Your task to perform on an android device: toggle data saver in the chrome app Image 0: 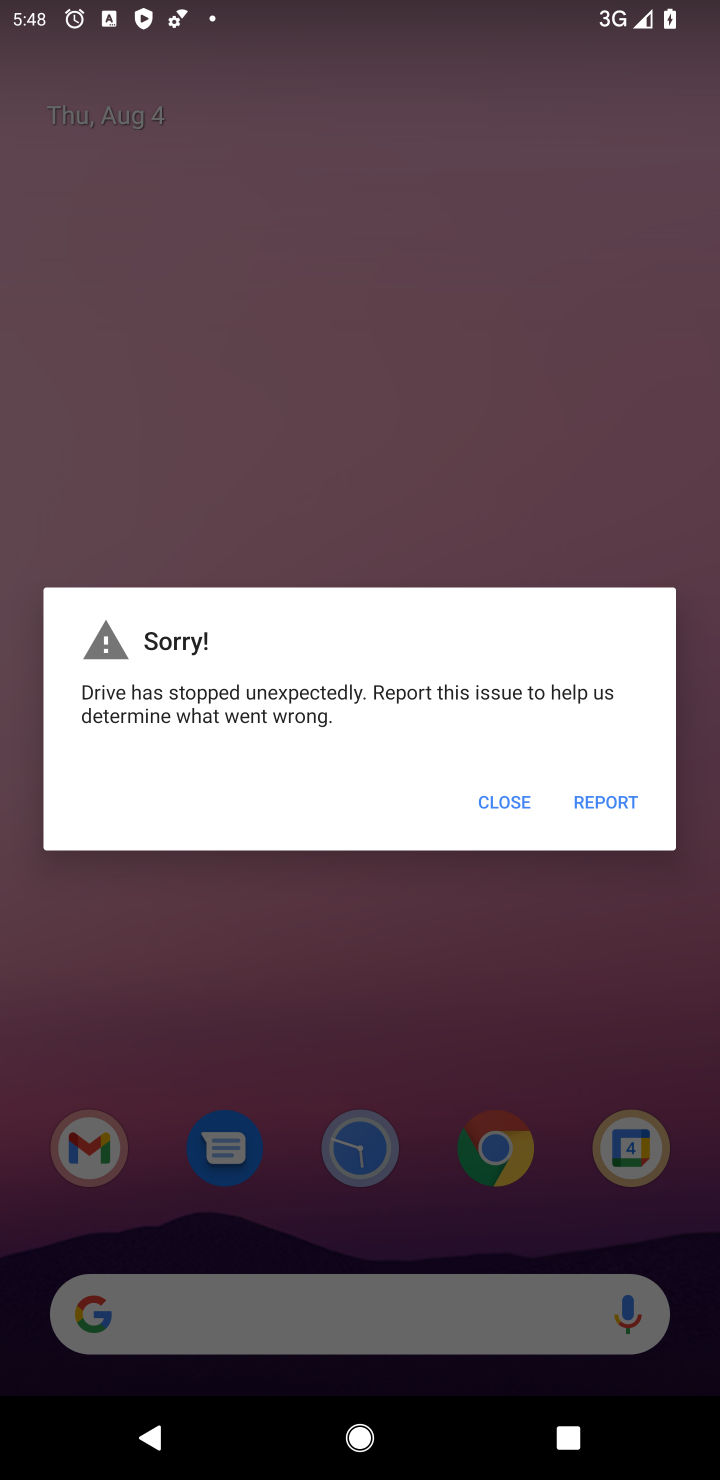
Step 0: press home button
Your task to perform on an android device: toggle data saver in the chrome app Image 1: 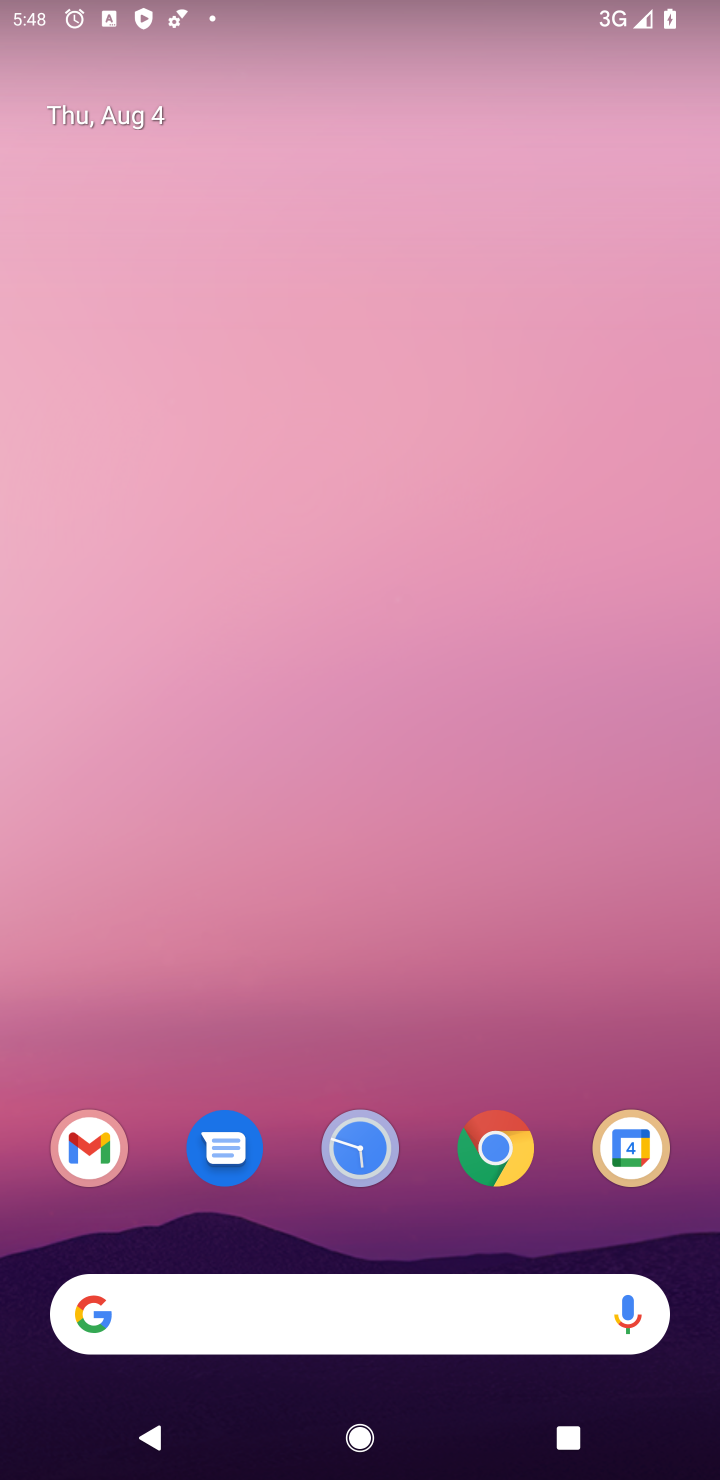
Step 1: click (499, 1148)
Your task to perform on an android device: toggle data saver in the chrome app Image 2: 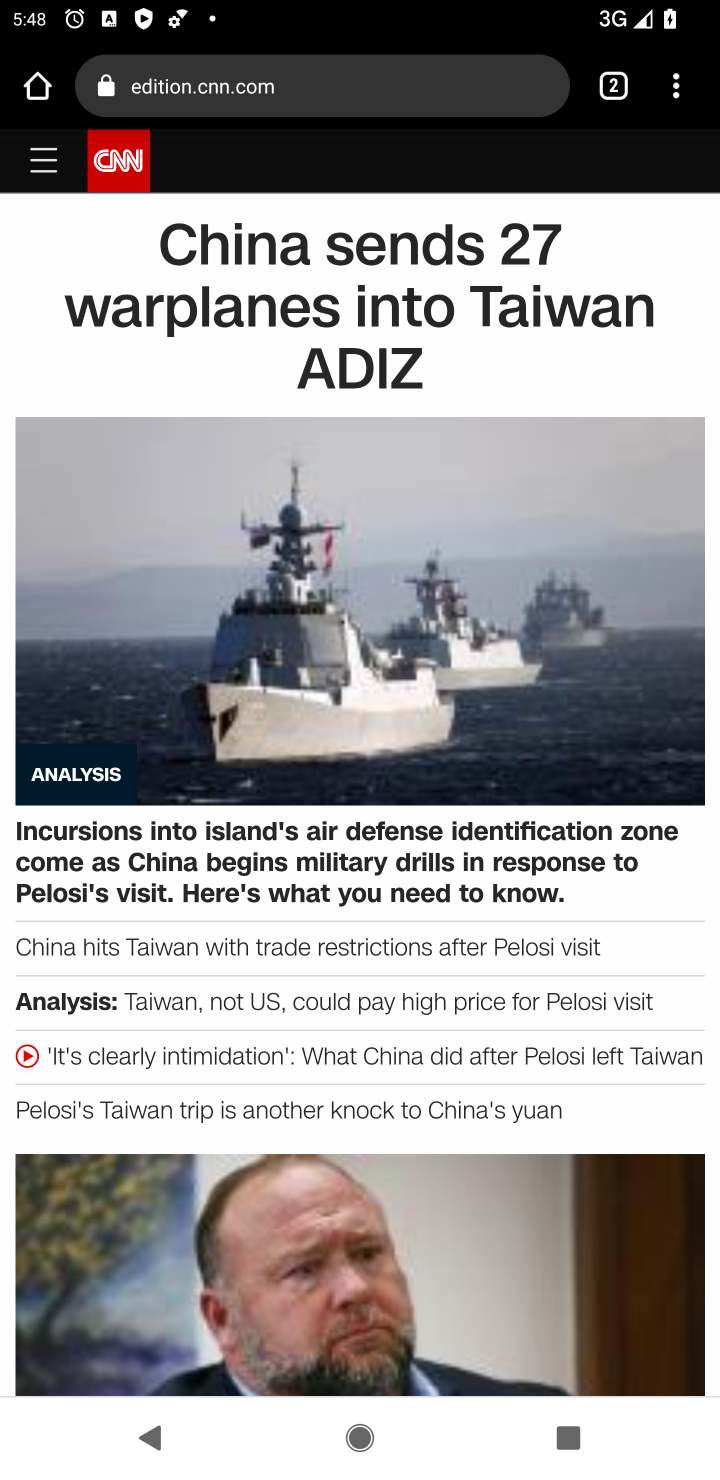
Step 2: click (668, 100)
Your task to perform on an android device: toggle data saver in the chrome app Image 3: 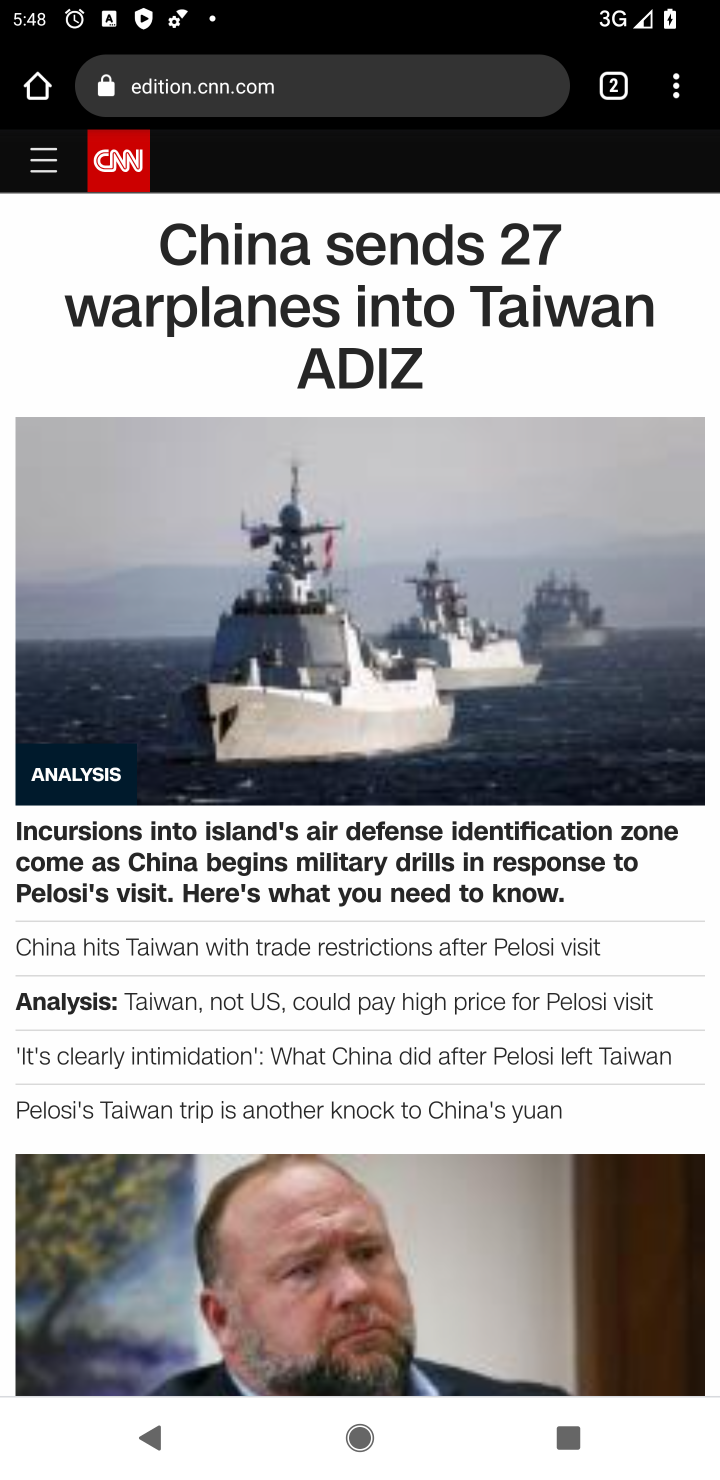
Step 3: click (674, 106)
Your task to perform on an android device: toggle data saver in the chrome app Image 4: 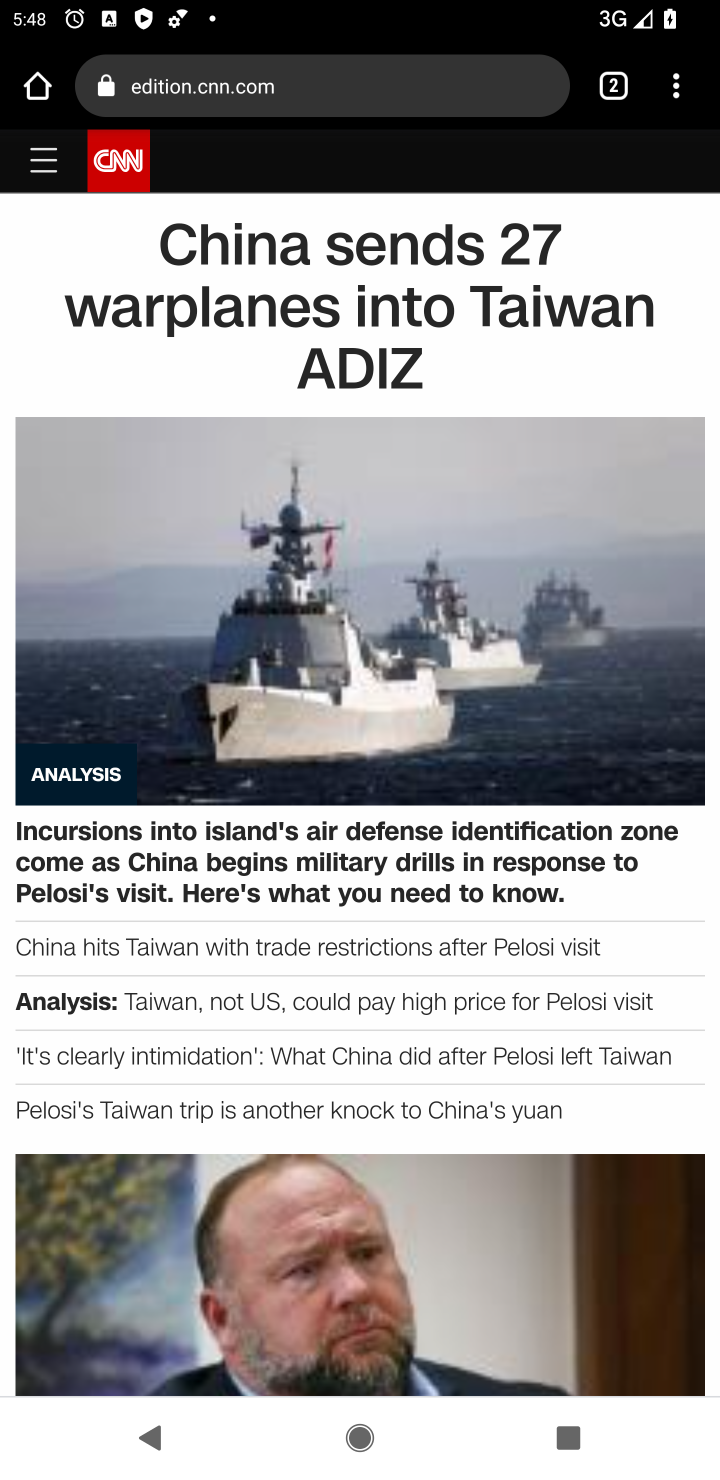
Step 4: click (674, 106)
Your task to perform on an android device: toggle data saver in the chrome app Image 5: 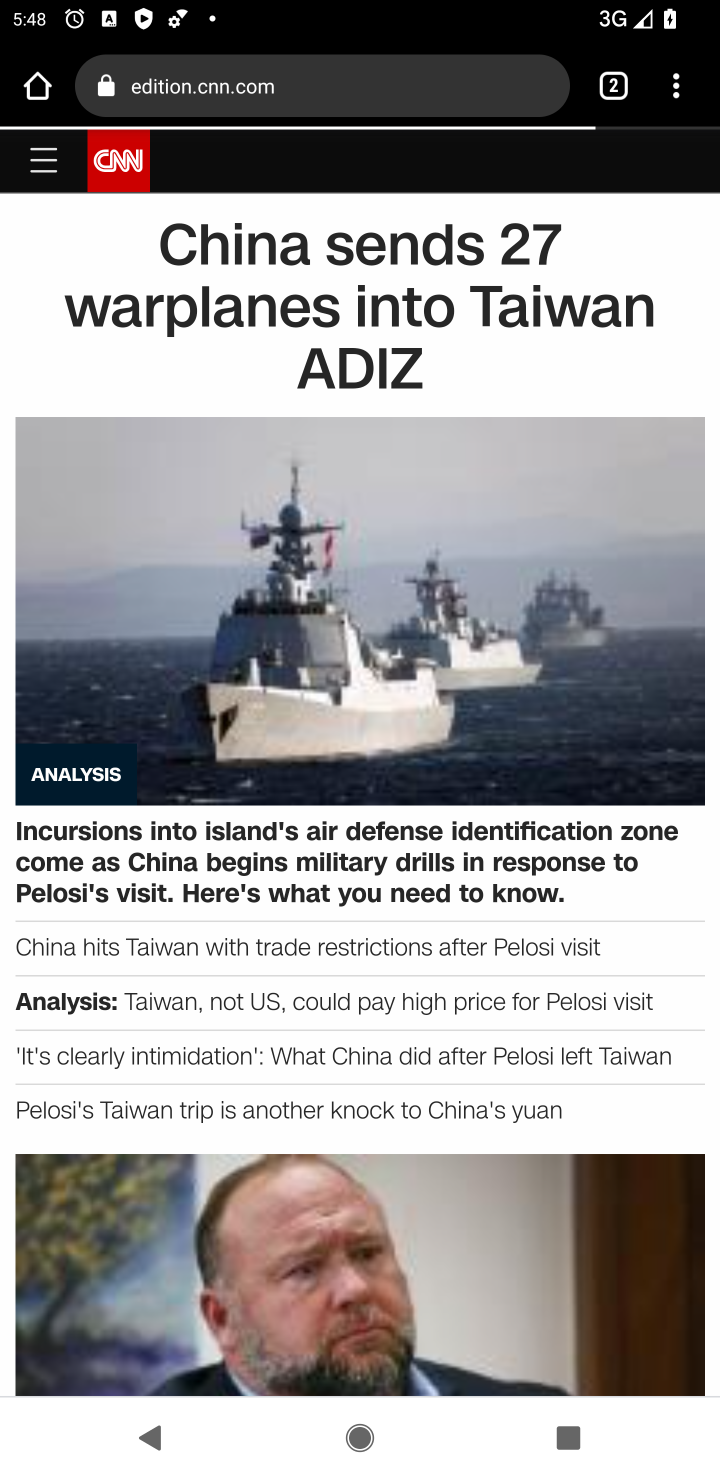
Step 5: click (674, 106)
Your task to perform on an android device: toggle data saver in the chrome app Image 6: 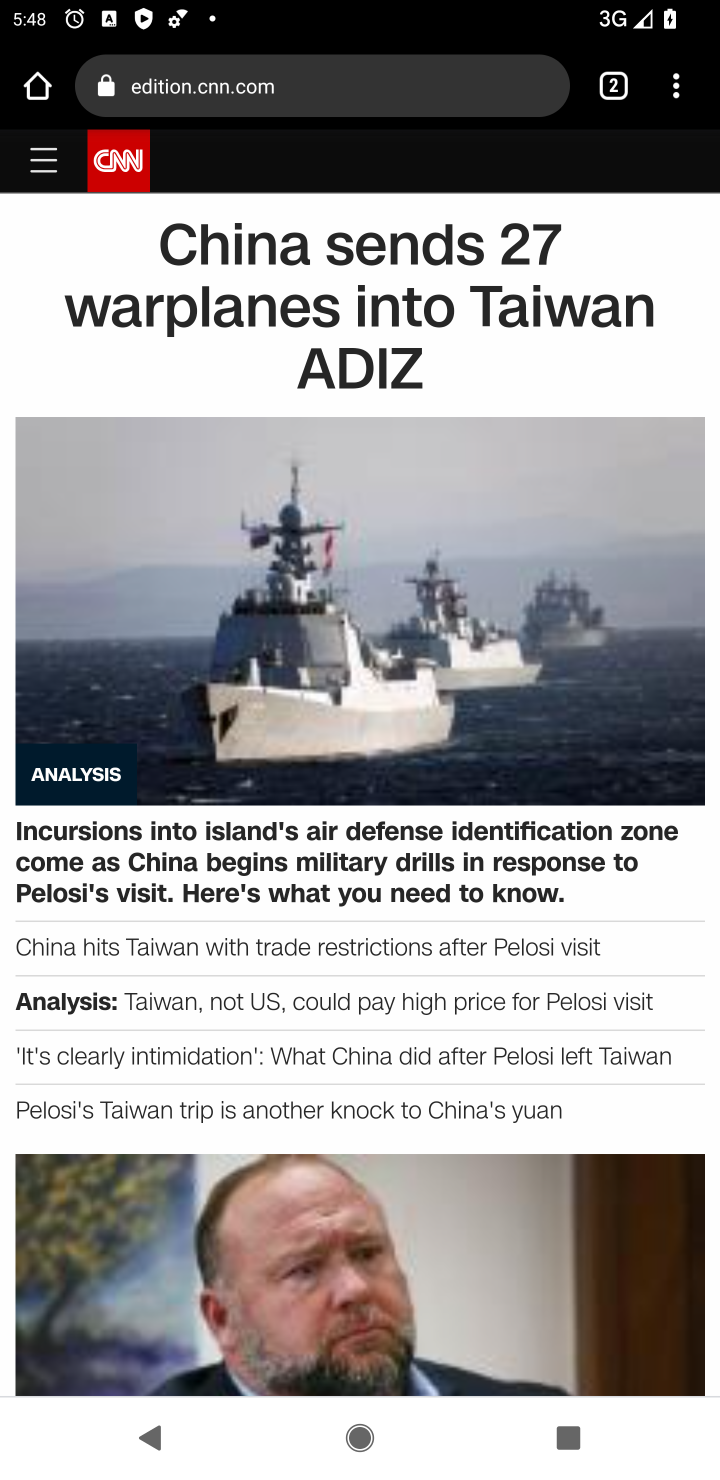
Step 6: click (674, 106)
Your task to perform on an android device: toggle data saver in the chrome app Image 7: 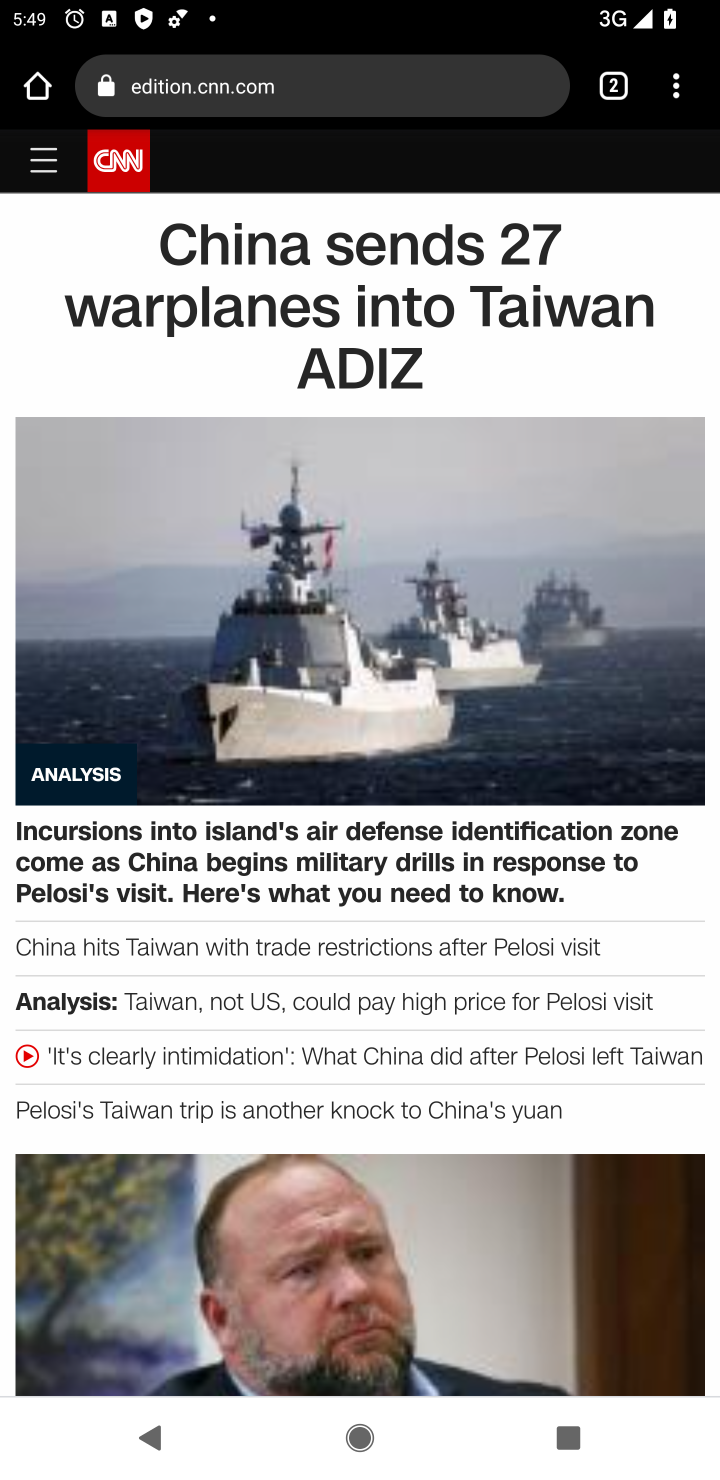
Step 7: task complete